Your task to perform on an android device: change the clock style Image 0: 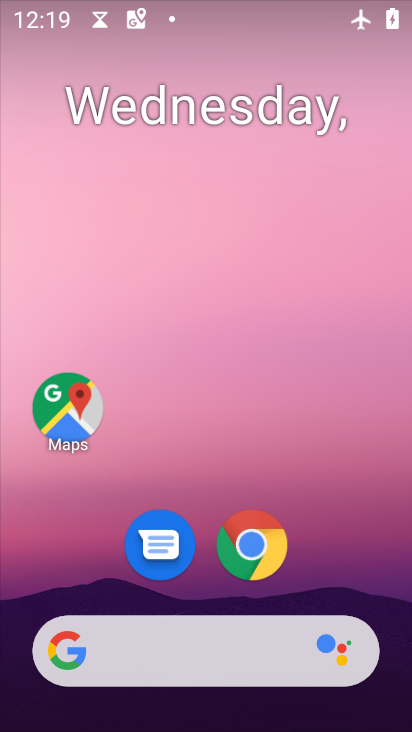
Step 0: drag from (379, 534) to (391, 152)
Your task to perform on an android device: change the clock style Image 1: 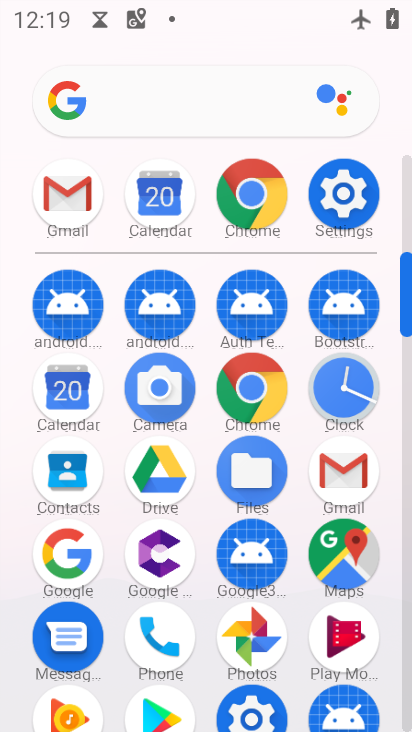
Step 1: click (348, 390)
Your task to perform on an android device: change the clock style Image 2: 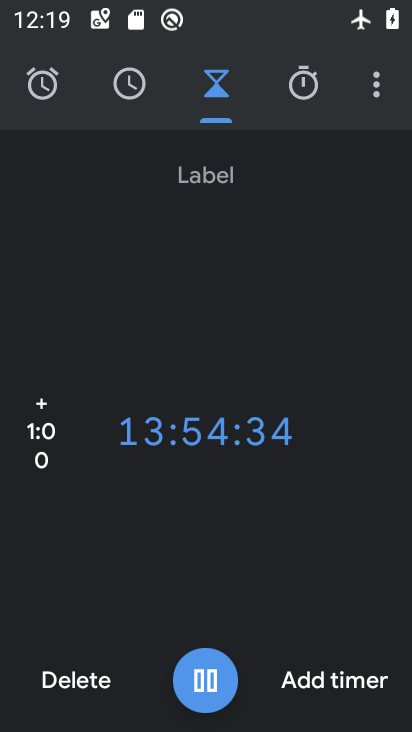
Step 2: click (369, 91)
Your task to perform on an android device: change the clock style Image 3: 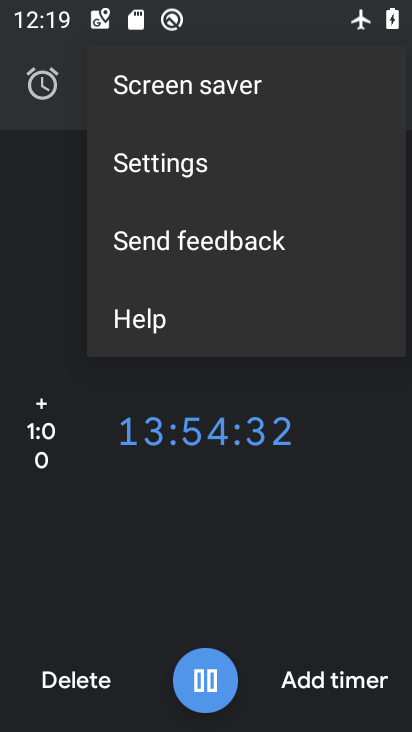
Step 3: click (153, 161)
Your task to perform on an android device: change the clock style Image 4: 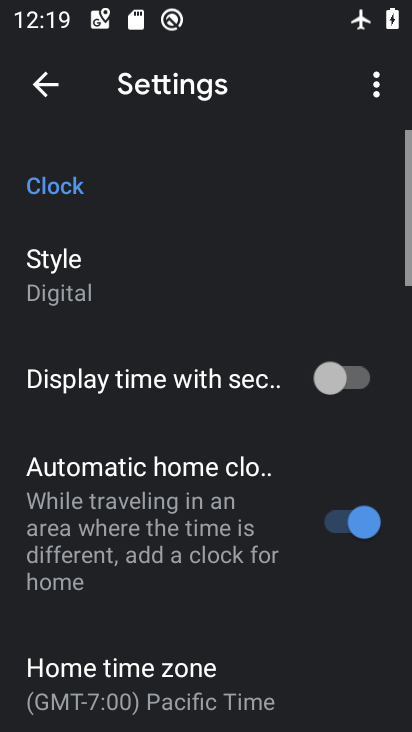
Step 4: click (23, 279)
Your task to perform on an android device: change the clock style Image 5: 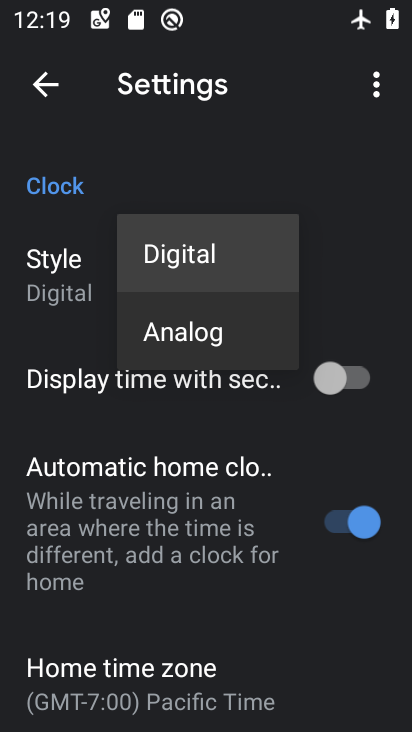
Step 5: click (195, 315)
Your task to perform on an android device: change the clock style Image 6: 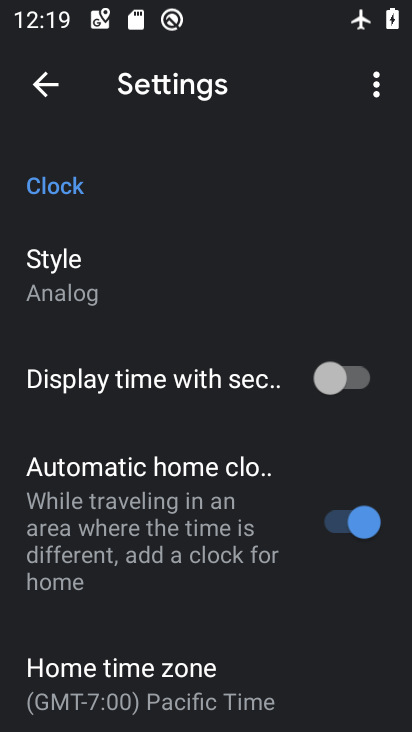
Step 6: task complete